Your task to perform on an android device: choose inbox layout in the gmail app Image 0: 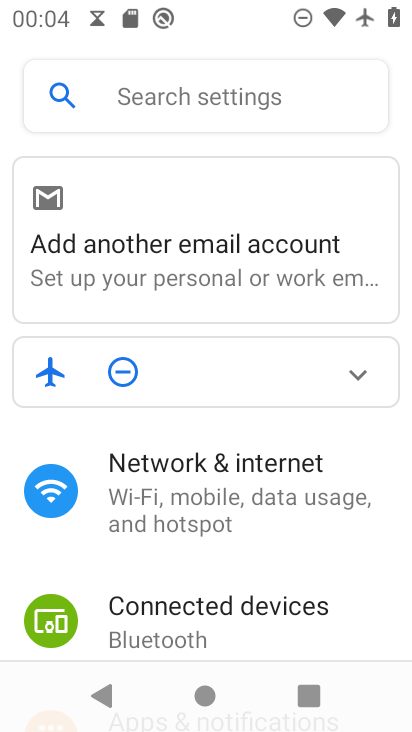
Step 0: press back button
Your task to perform on an android device: choose inbox layout in the gmail app Image 1: 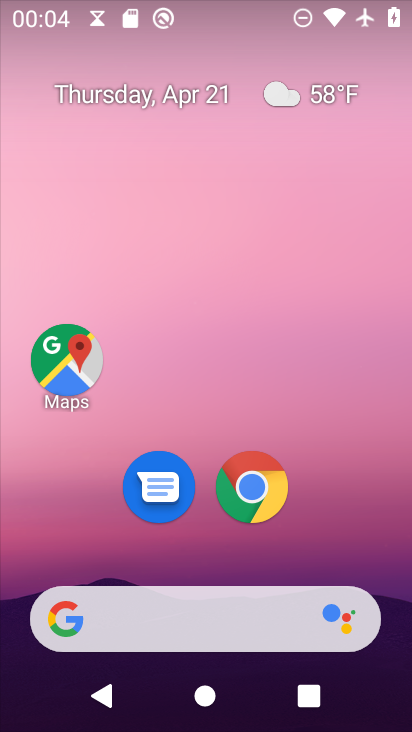
Step 1: drag from (314, 557) to (279, 28)
Your task to perform on an android device: choose inbox layout in the gmail app Image 2: 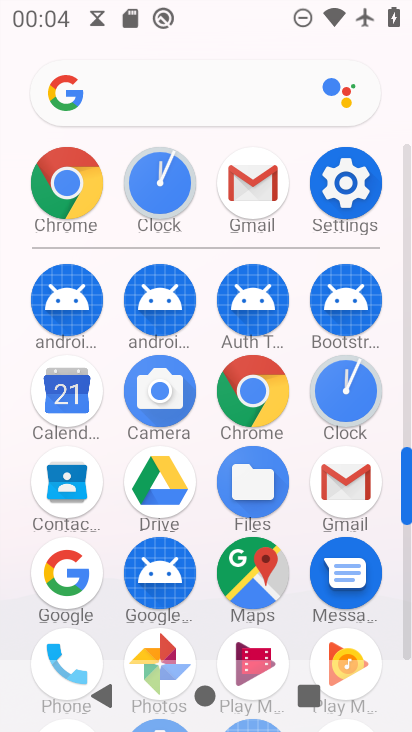
Step 2: drag from (12, 502) to (4, 357)
Your task to perform on an android device: choose inbox layout in the gmail app Image 3: 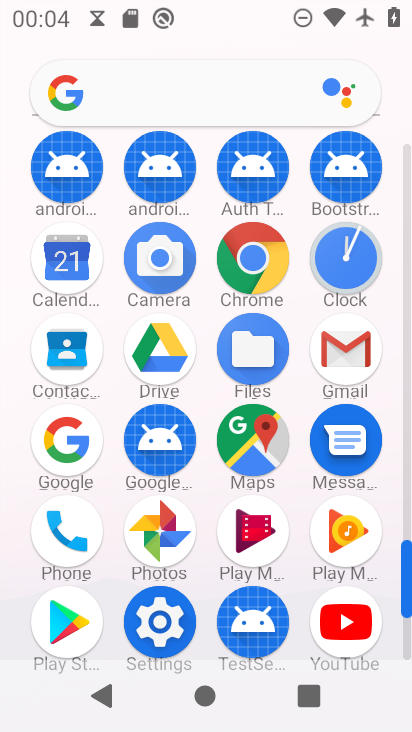
Step 3: drag from (12, 555) to (0, 282)
Your task to perform on an android device: choose inbox layout in the gmail app Image 4: 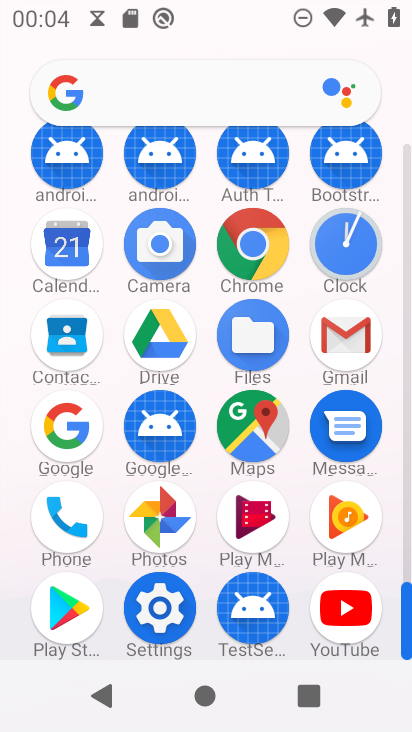
Step 4: click (334, 325)
Your task to perform on an android device: choose inbox layout in the gmail app Image 5: 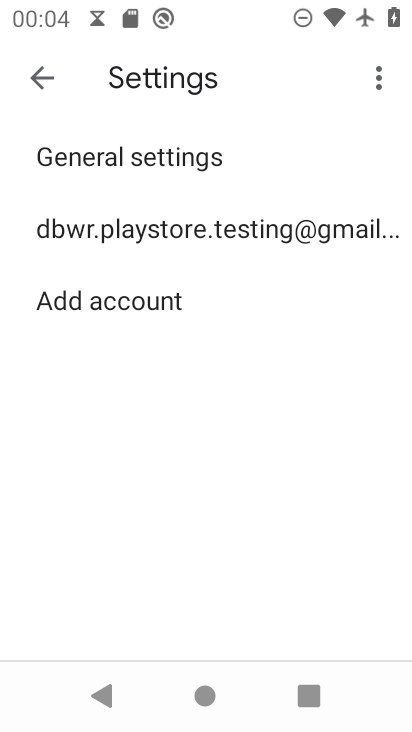
Step 5: click (82, 223)
Your task to perform on an android device: choose inbox layout in the gmail app Image 6: 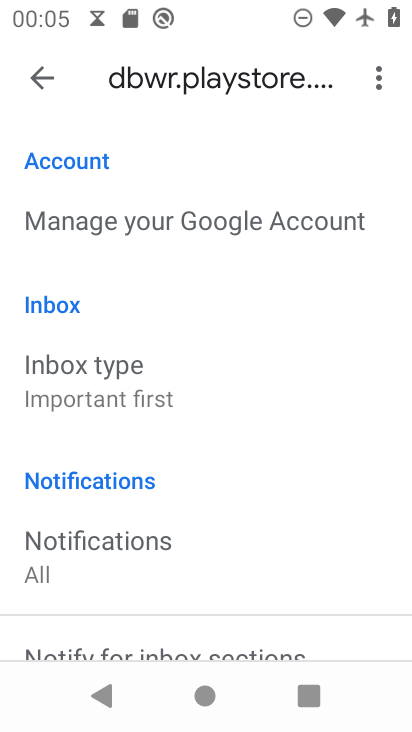
Step 6: click (137, 398)
Your task to perform on an android device: choose inbox layout in the gmail app Image 7: 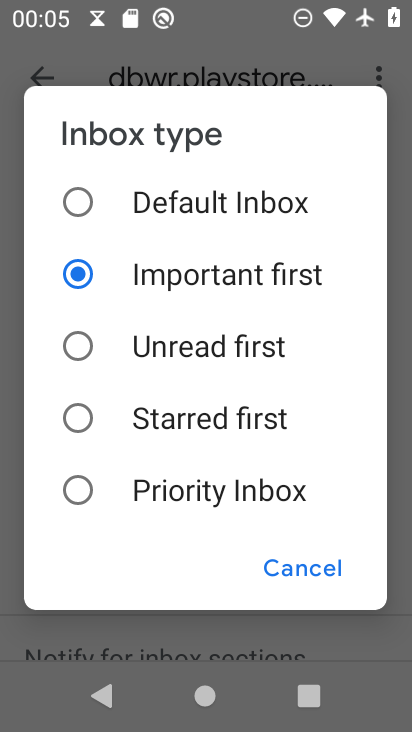
Step 7: click (137, 428)
Your task to perform on an android device: choose inbox layout in the gmail app Image 8: 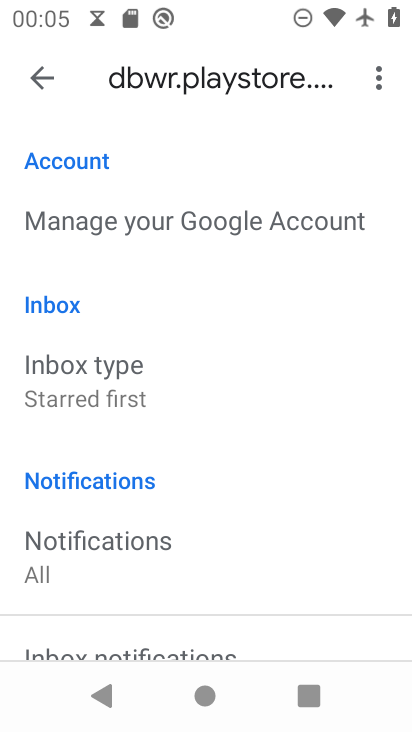
Step 8: task complete